Your task to perform on an android device: open wifi settings Image 0: 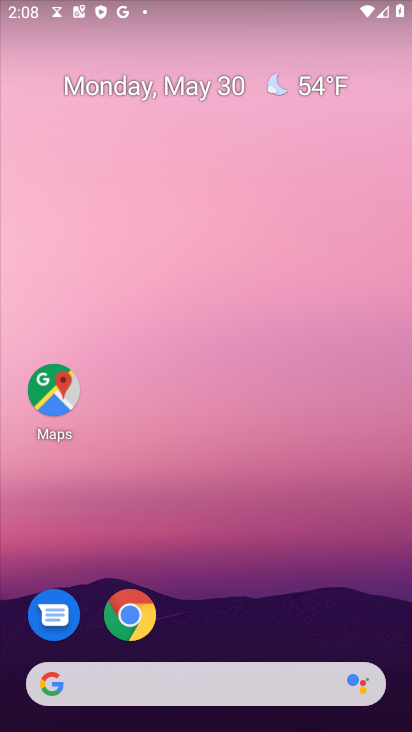
Step 0: drag from (276, 523) to (183, 6)
Your task to perform on an android device: open wifi settings Image 1: 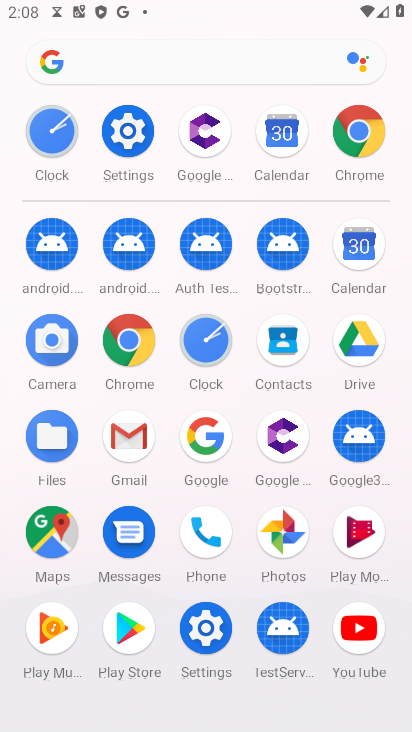
Step 1: click (120, 127)
Your task to perform on an android device: open wifi settings Image 2: 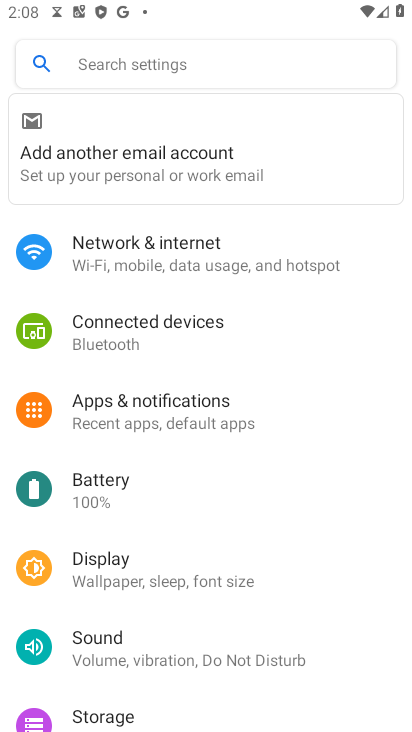
Step 2: click (131, 259)
Your task to perform on an android device: open wifi settings Image 3: 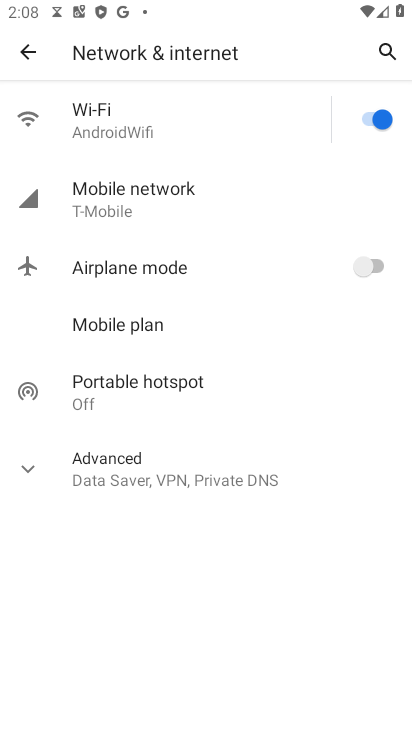
Step 3: click (148, 118)
Your task to perform on an android device: open wifi settings Image 4: 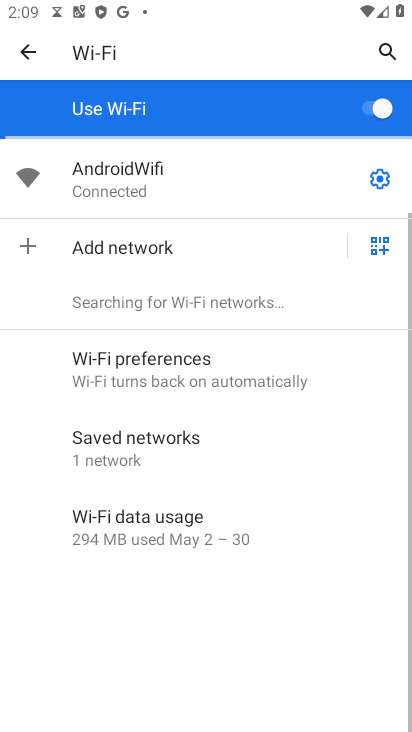
Step 4: task complete